Your task to perform on an android device: change the clock display to digital Image 0: 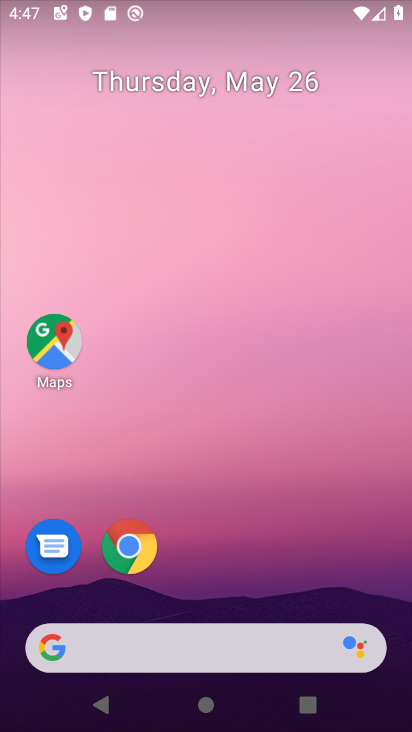
Step 0: click (256, 595)
Your task to perform on an android device: change the clock display to digital Image 1: 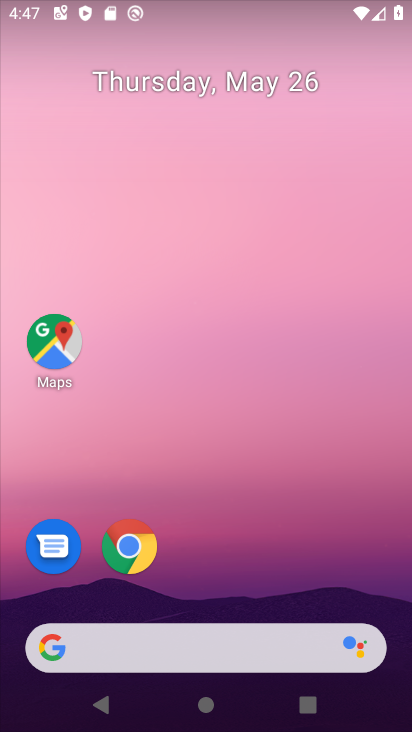
Step 1: drag from (256, 595) to (213, 71)
Your task to perform on an android device: change the clock display to digital Image 2: 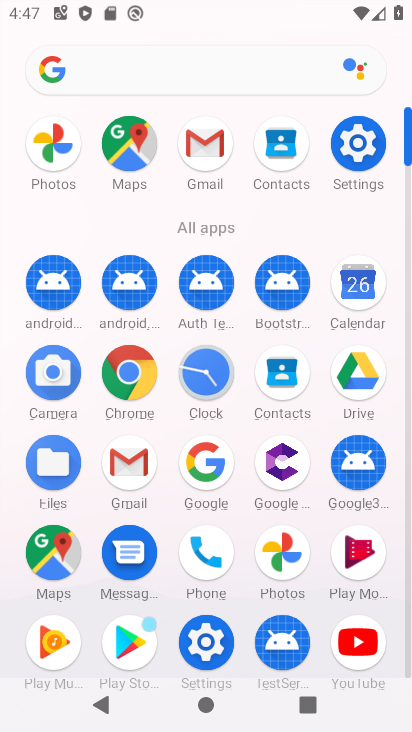
Step 2: click (204, 380)
Your task to perform on an android device: change the clock display to digital Image 3: 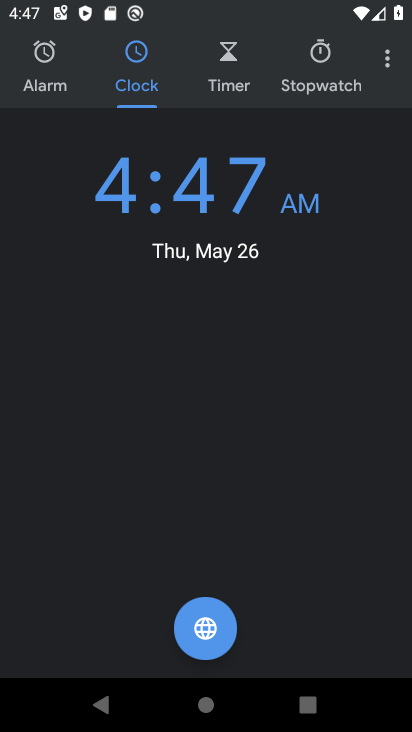
Step 3: click (392, 64)
Your task to perform on an android device: change the clock display to digital Image 4: 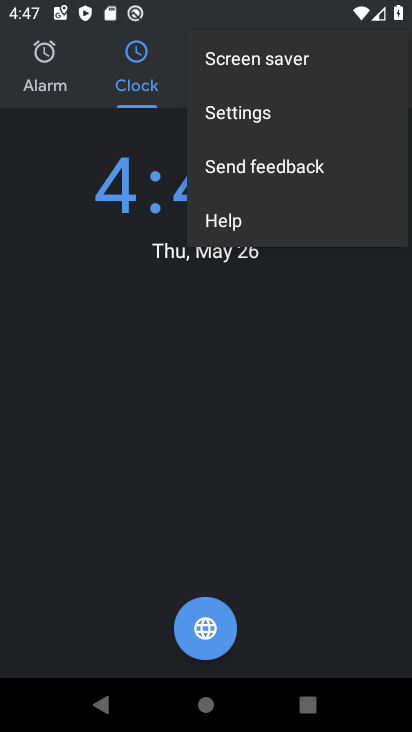
Step 4: click (292, 114)
Your task to perform on an android device: change the clock display to digital Image 5: 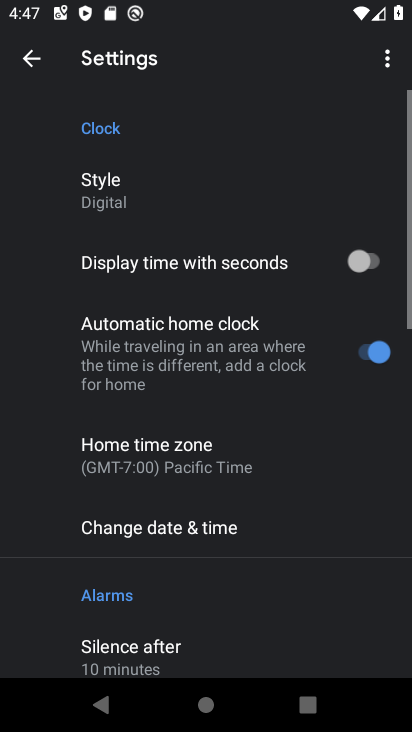
Step 5: click (158, 188)
Your task to perform on an android device: change the clock display to digital Image 6: 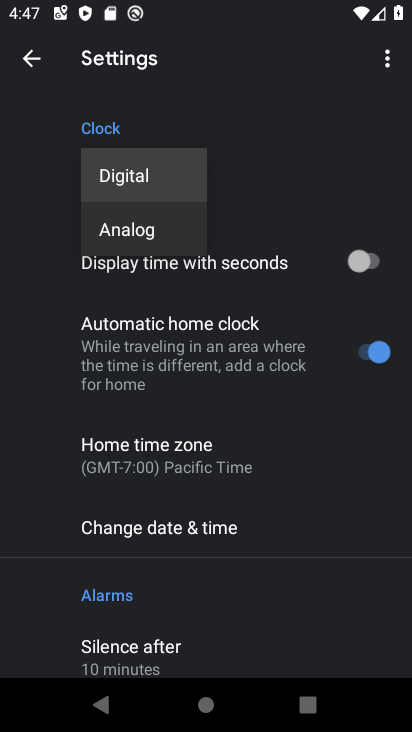
Step 6: task complete